Your task to perform on an android device: see sites visited before in the chrome app Image 0: 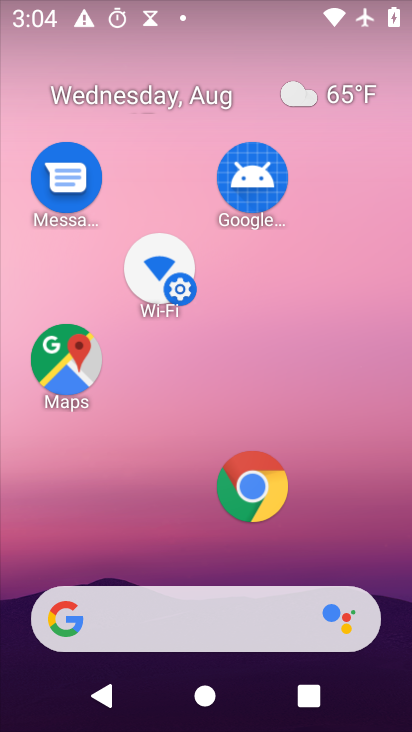
Step 0: press home button
Your task to perform on an android device: see sites visited before in the chrome app Image 1: 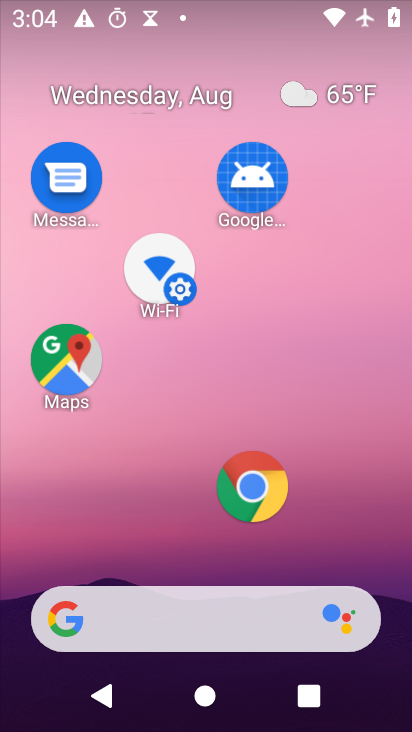
Step 1: click (250, 491)
Your task to perform on an android device: see sites visited before in the chrome app Image 2: 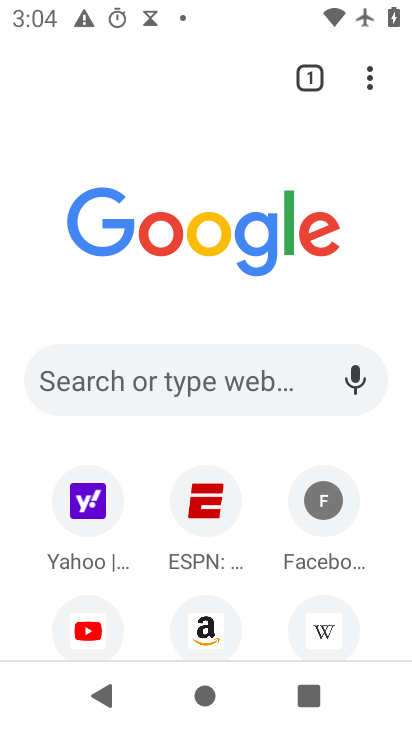
Step 2: task complete